Your task to perform on an android device: Go to eBay Image 0: 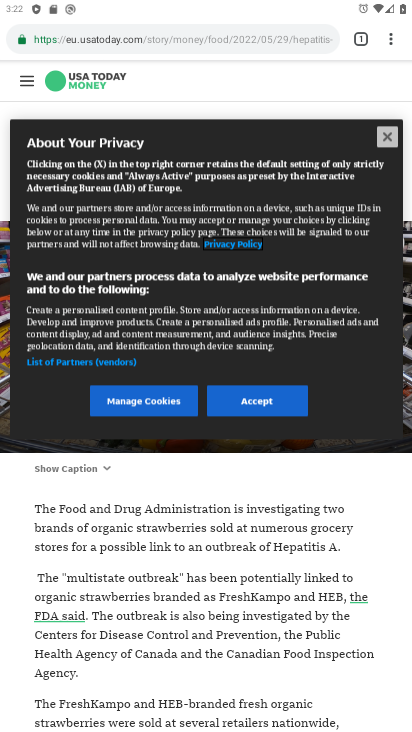
Step 0: press home button
Your task to perform on an android device: Go to eBay Image 1: 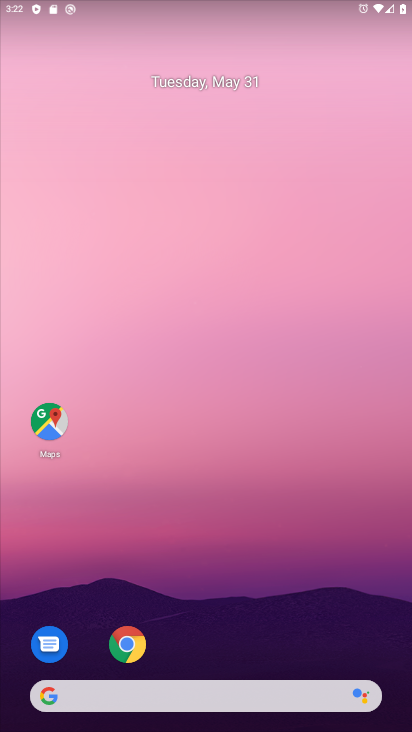
Step 1: click (130, 650)
Your task to perform on an android device: Go to eBay Image 2: 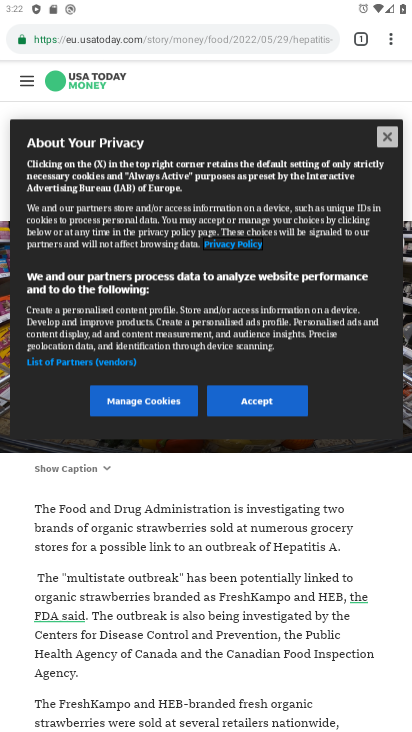
Step 2: click (357, 33)
Your task to perform on an android device: Go to eBay Image 3: 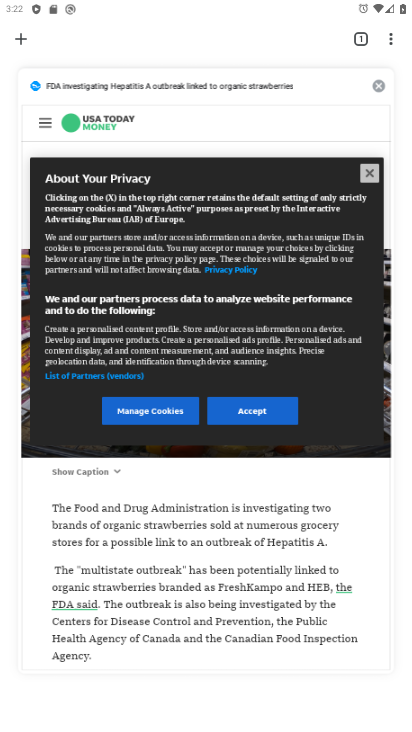
Step 3: click (376, 89)
Your task to perform on an android device: Go to eBay Image 4: 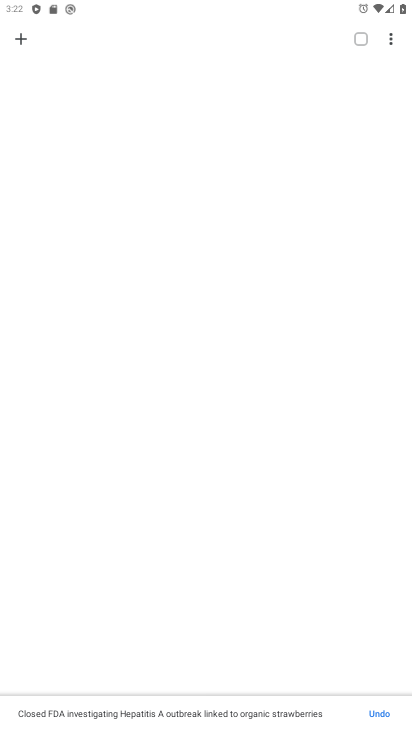
Step 4: click (26, 38)
Your task to perform on an android device: Go to eBay Image 5: 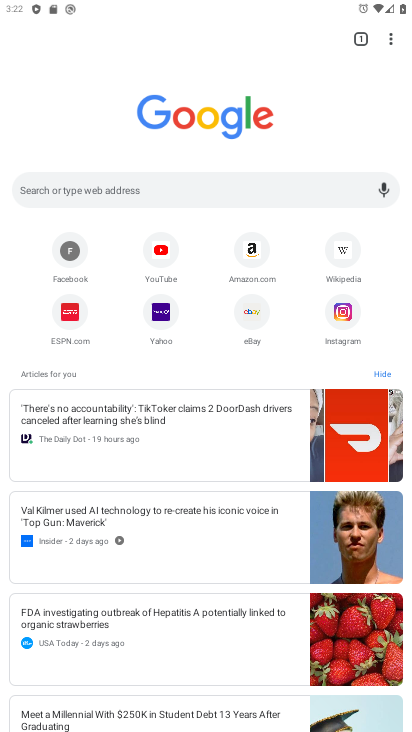
Step 5: click (248, 307)
Your task to perform on an android device: Go to eBay Image 6: 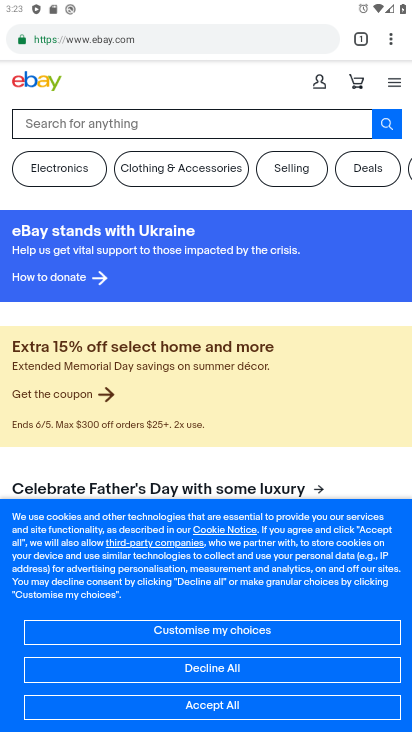
Step 6: task complete